Your task to perform on an android device: Open Google Maps and go to "Timeline" Image 0: 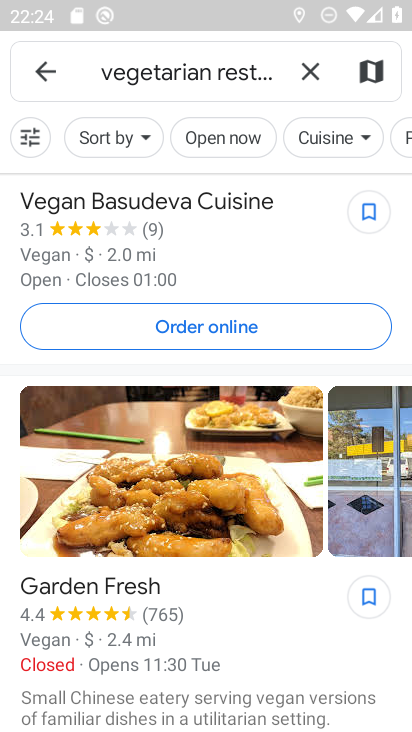
Step 0: press home button
Your task to perform on an android device: Open Google Maps and go to "Timeline" Image 1: 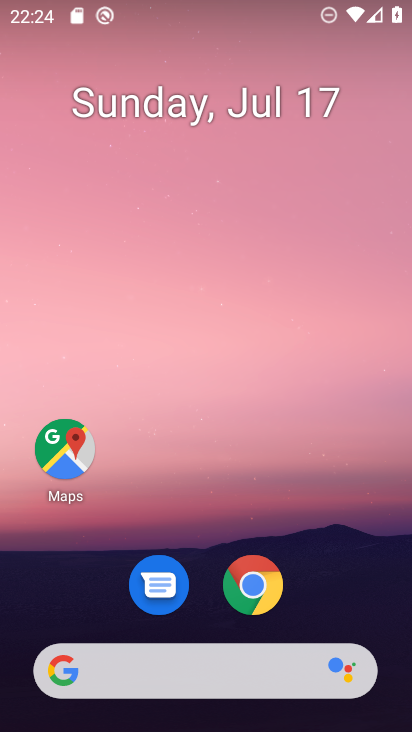
Step 1: click (65, 449)
Your task to perform on an android device: Open Google Maps and go to "Timeline" Image 2: 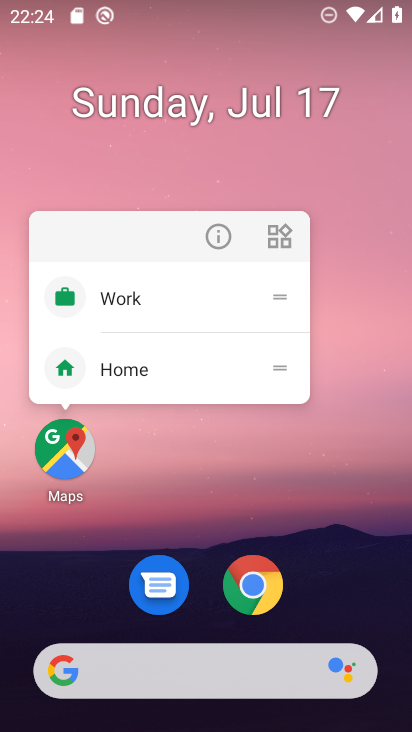
Step 2: click (65, 448)
Your task to perform on an android device: Open Google Maps and go to "Timeline" Image 3: 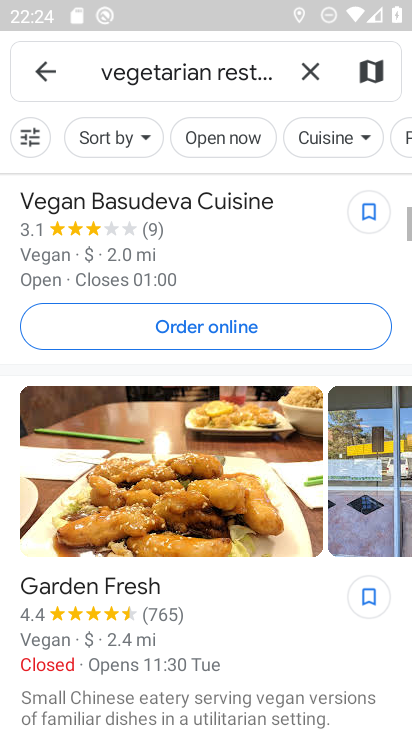
Step 3: click (47, 73)
Your task to perform on an android device: Open Google Maps and go to "Timeline" Image 4: 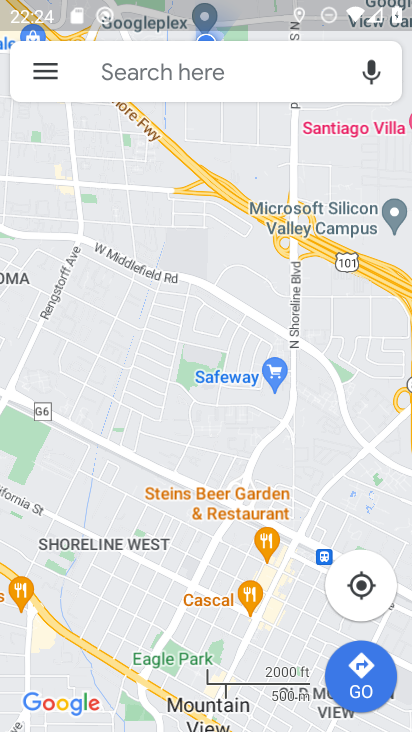
Step 4: click (47, 72)
Your task to perform on an android device: Open Google Maps and go to "Timeline" Image 5: 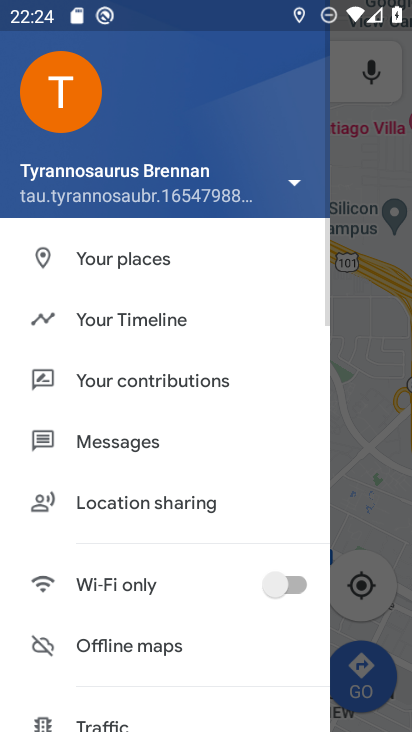
Step 5: click (129, 313)
Your task to perform on an android device: Open Google Maps and go to "Timeline" Image 6: 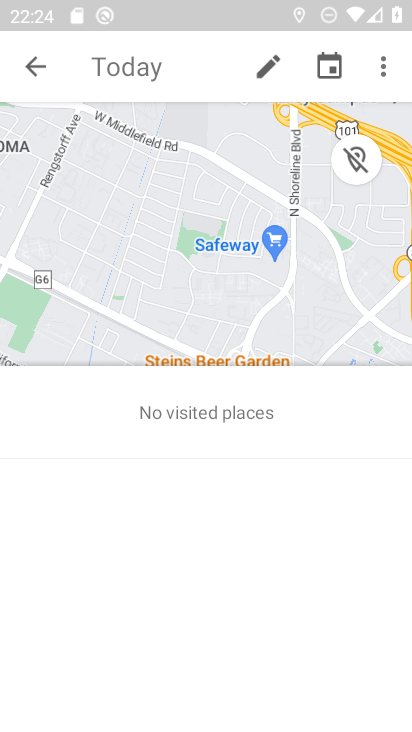
Step 6: task complete